Your task to perform on an android device: Add bose soundlink mini to the cart on costco, then select checkout. Image 0: 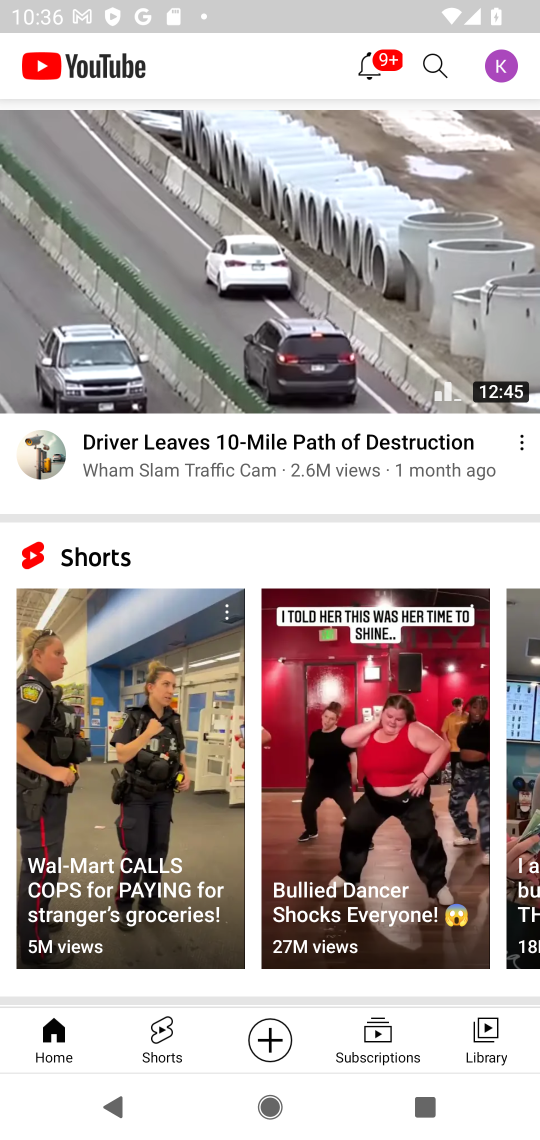
Step 0: press home button
Your task to perform on an android device: Add bose soundlink mini to the cart on costco, then select checkout. Image 1: 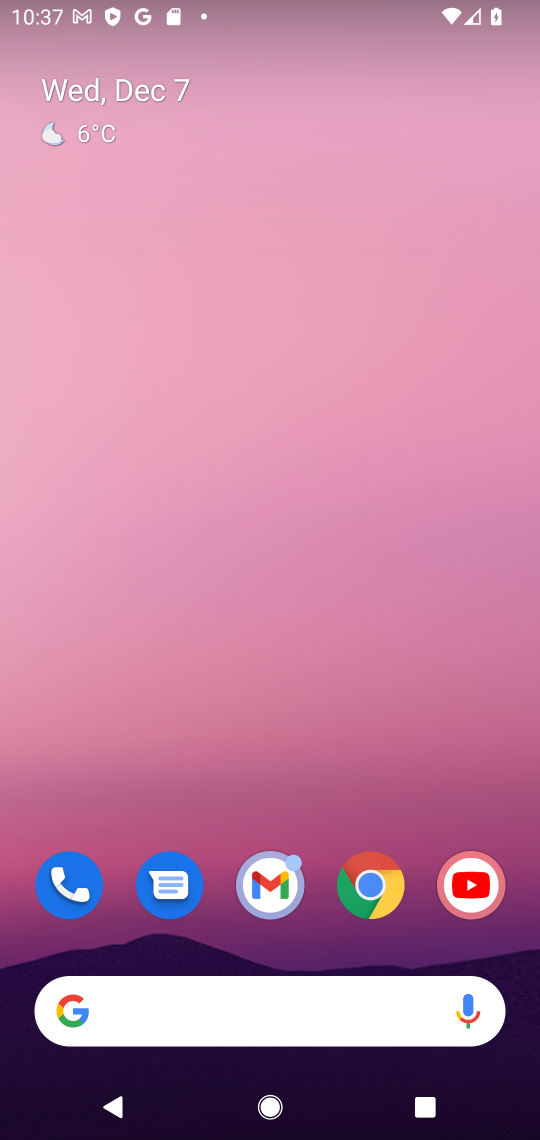
Step 1: click (362, 890)
Your task to perform on an android device: Add bose soundlink mini to the cart on costco, then select checkout. Image 2: 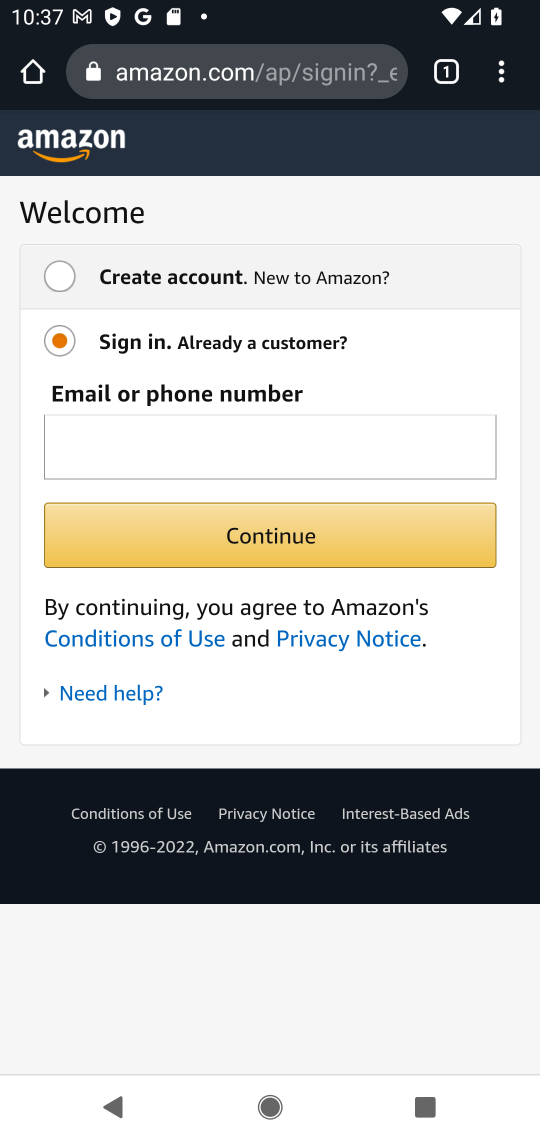
Step 2: click (241, 79)
Your task to perform on an android device: Add bose soundlink mini to the cart on costco, then select checkout. Image 3: 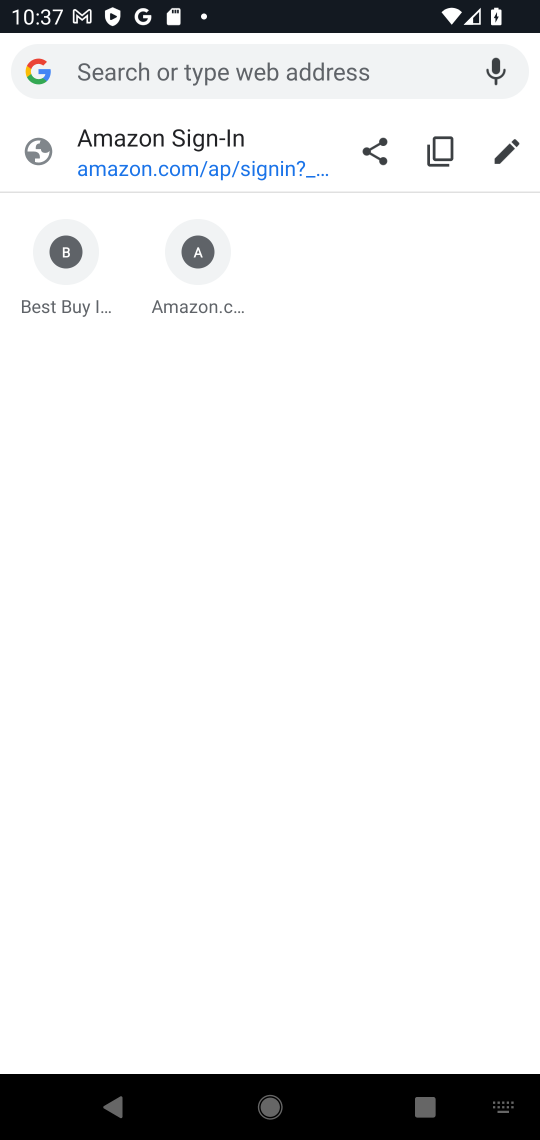
Step 3: type "COSTCO"
Your task to perform on an android device: Add bose soundlink mini to the cart on costco, then select checkout. Image 4: 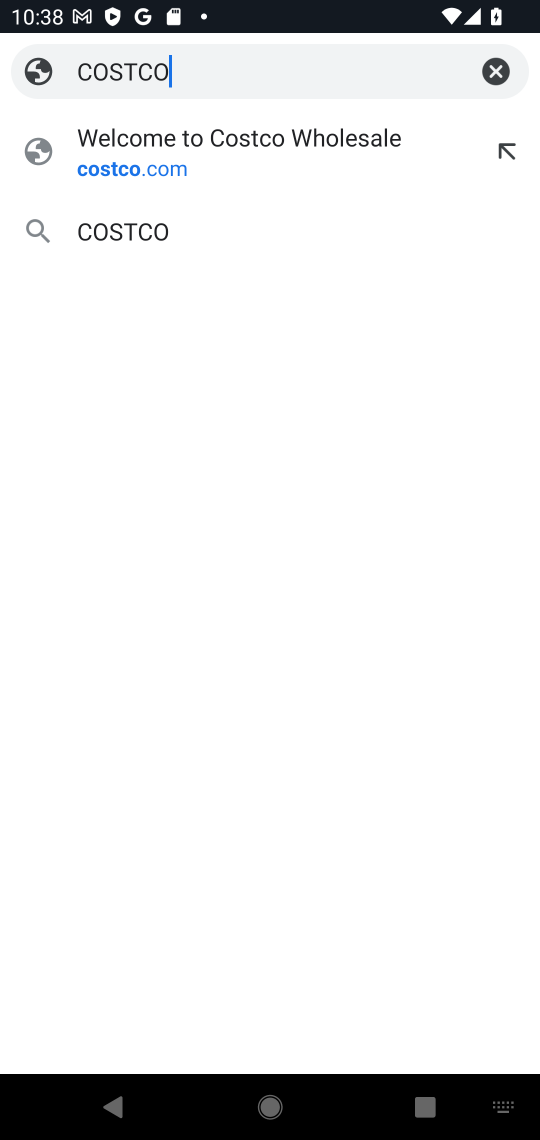
Step 4: click (195, 150)
Your task to perform on an android device: Add bose soundlink mini to the cart on costco, then select checkout. Image 5: 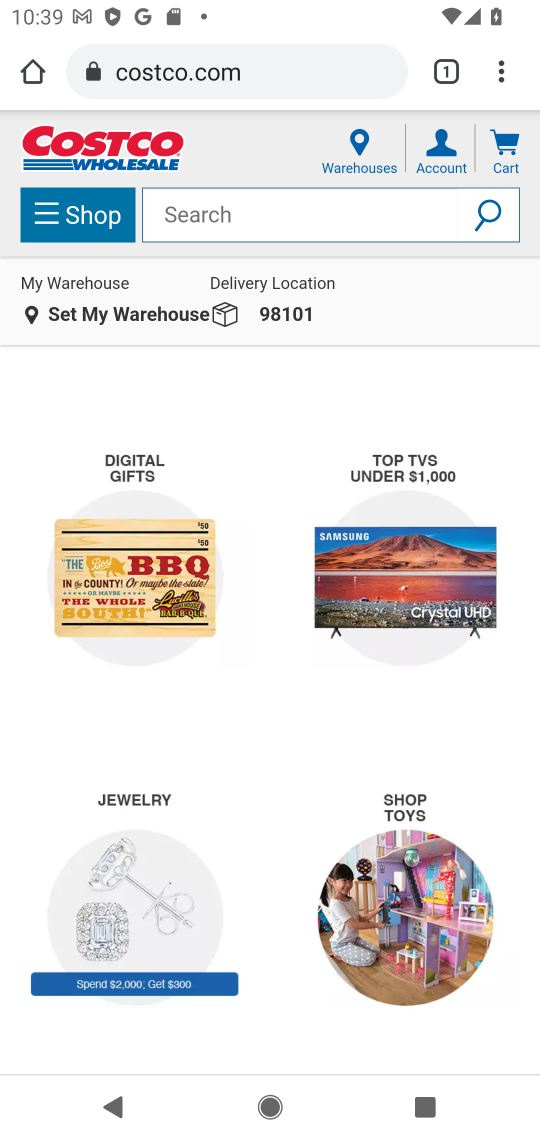
Step 5: click (394, 209)
Your task to perform on an android device: Add bose soundlink mini to the cart on costco, then select checkout. Image 6: 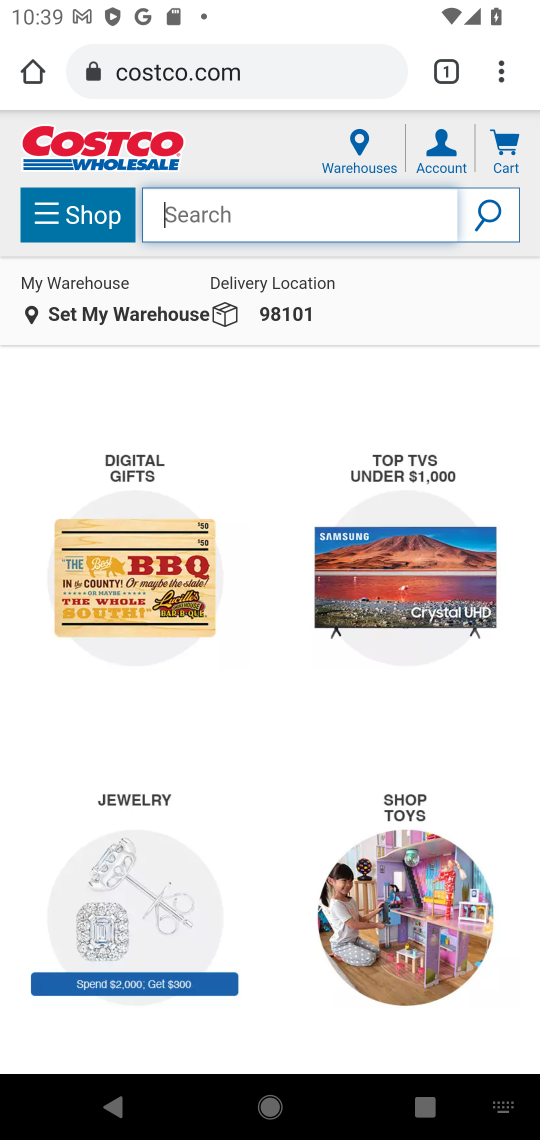
Step 6: type "bose soundlink mini"
Your task to perform on an android device: Add bose soundlink mini to the cart on costco, then select checkout. Image 7: 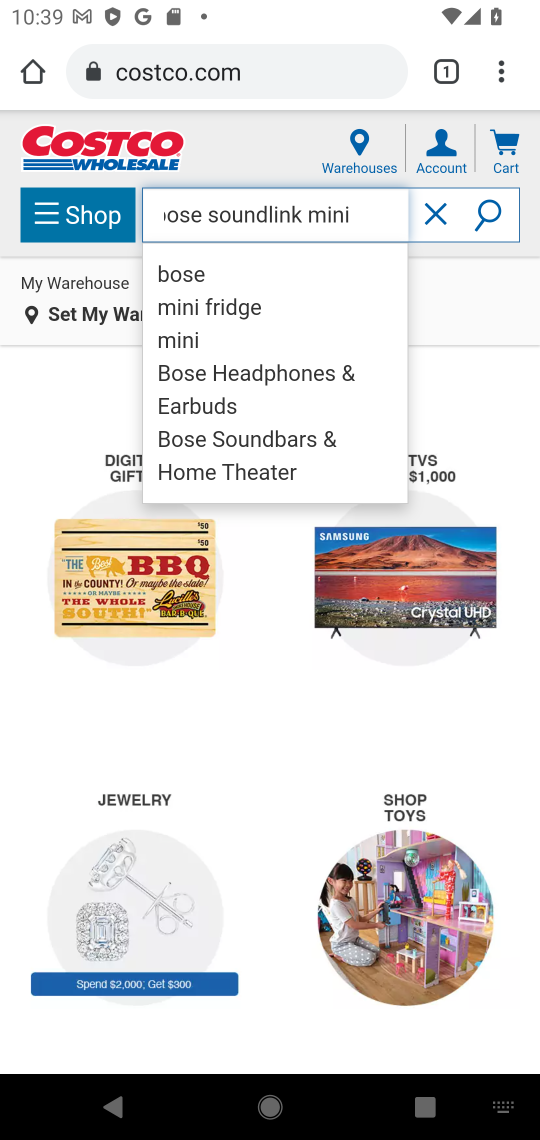
Step 7: click (194, 282)
Your task to perform on an android device: Add bose soundlink mini to the cart on costco, then select checkout. Image 8: 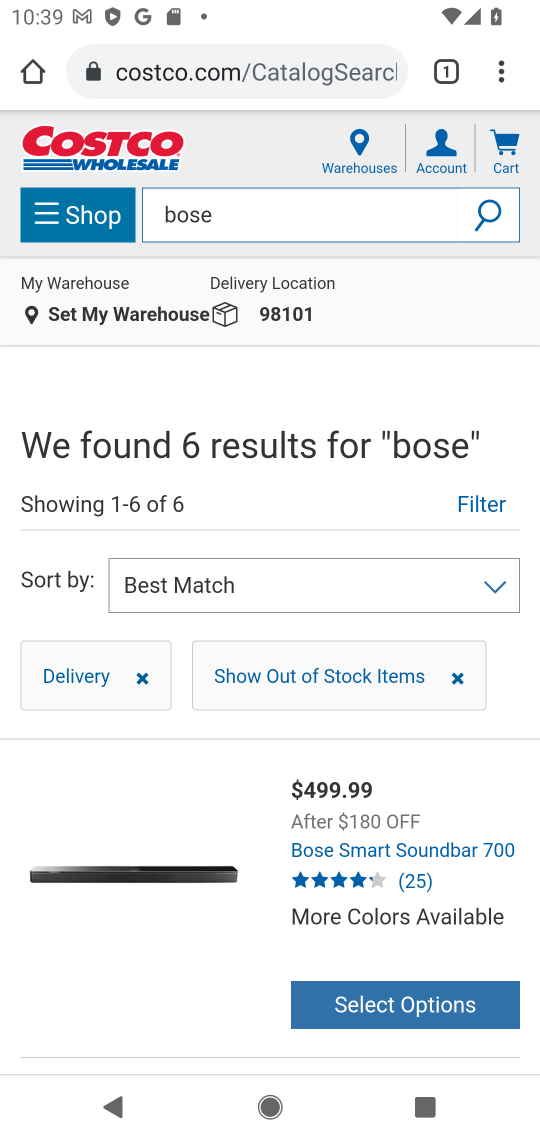
Step 8: click (197, 895)
Your task to perform on an android device: Add bose soundlink mini to the cart on costco, then select checkout. Image 9: 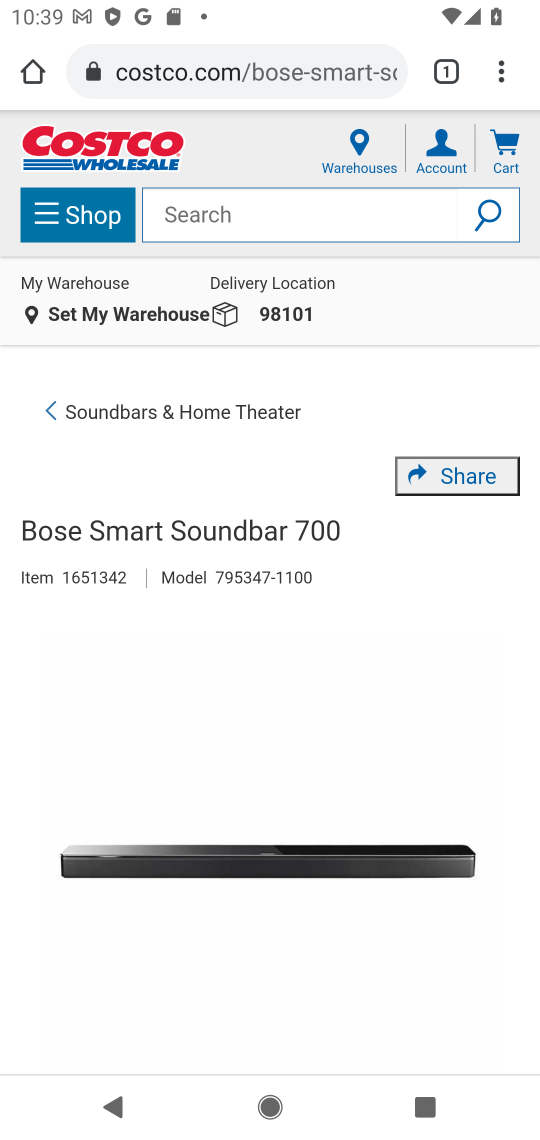
Step 9: drag from (401, 888) to (354, 135)
Your task to perform on an android device: Add bose soundlink mini to the cart on costco, then select checkout. Image 10: 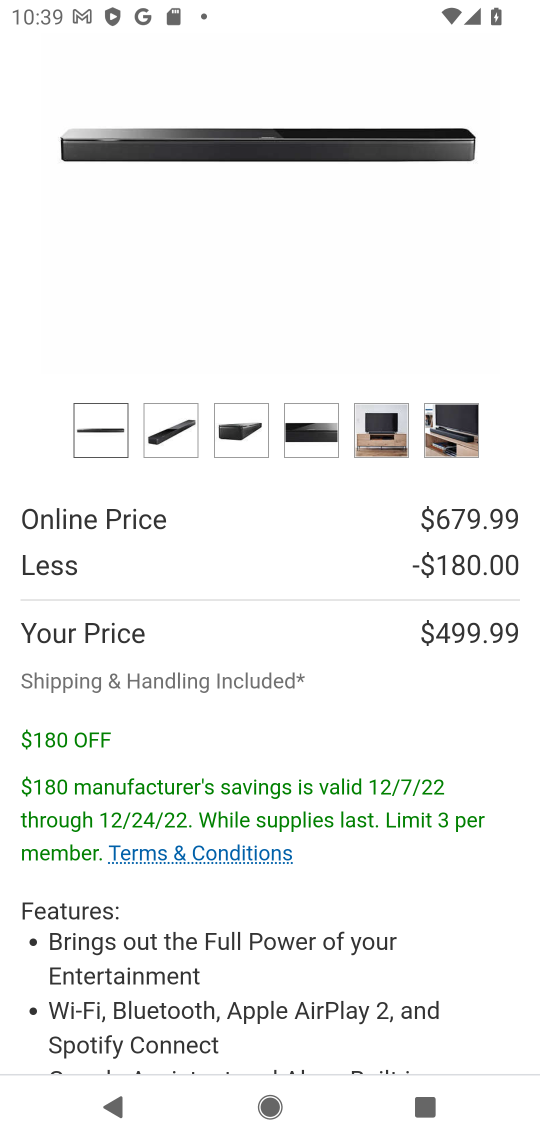
Step 10: drag from (406, 986) to (386, 134)
Your task to perform on an android device: Add bose soundlink mini to the cart on costco, then select checkout. Image 11: 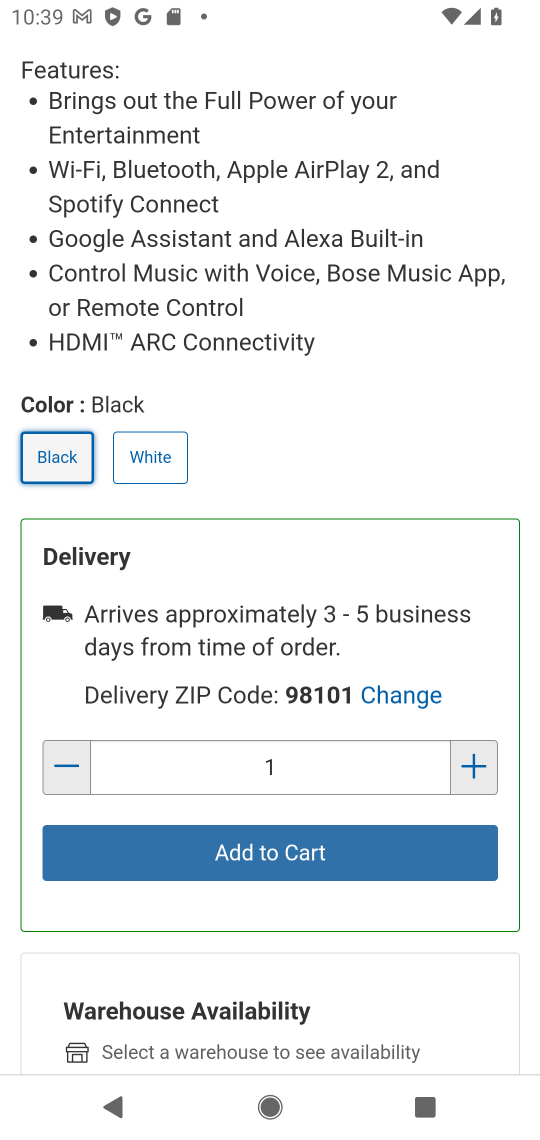
Step 11: click (251, 856)
Your task to perform on an android device: Add bose soundlink mini to the cart on costco, then select checkout. Image 12: 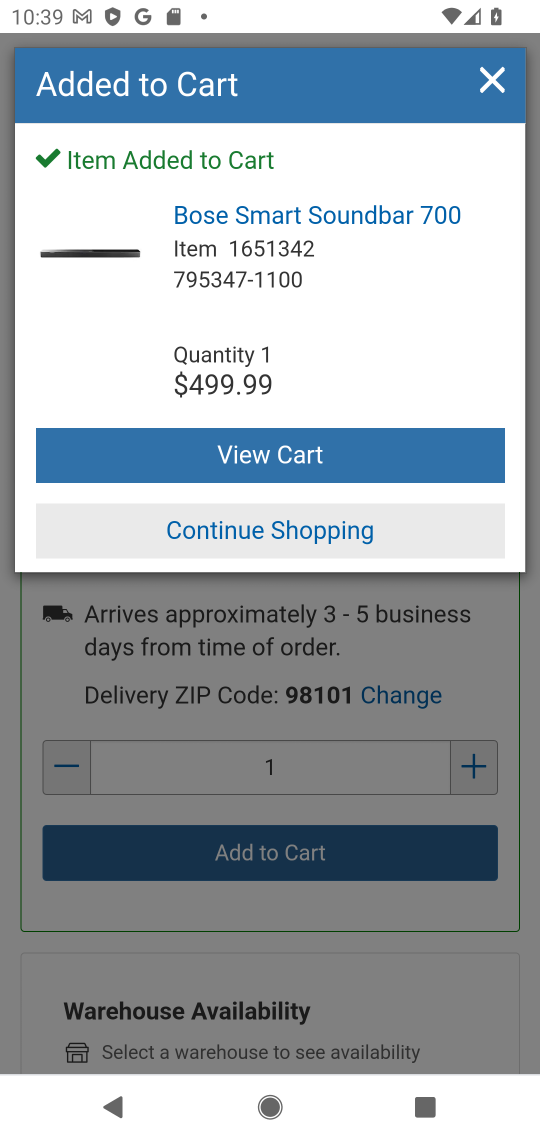
Step 12: click (282, 454)
Your task to perform on an android device: Add bose soundlink mini to the cart on costco, then select checkout. Image 13: 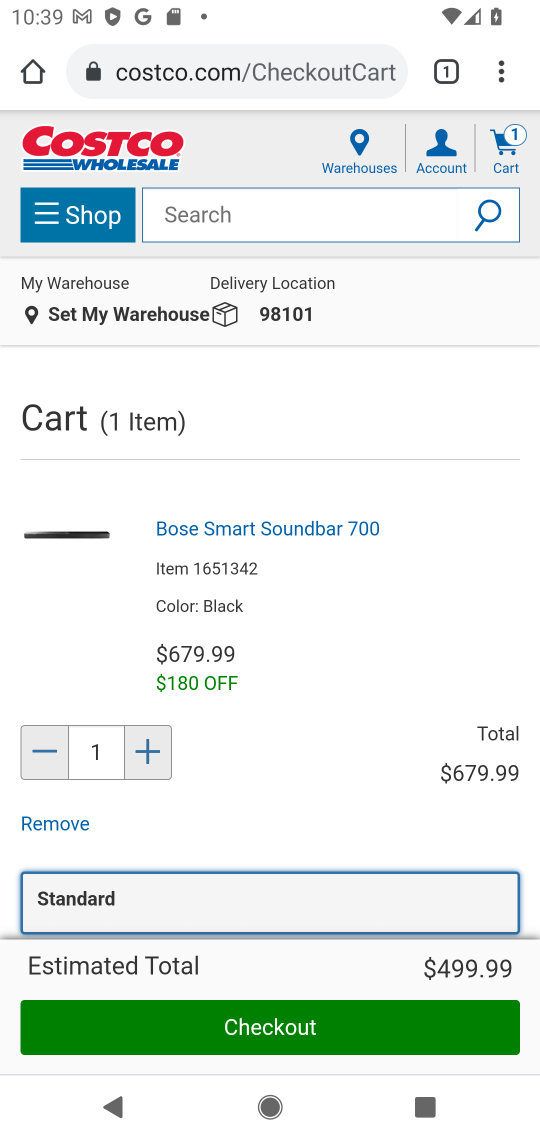
Step 13: click (286, 1029)
Your task to perform on an android device: Add bose soundlink mini to the cart on costco, then select checkout. Image 14: 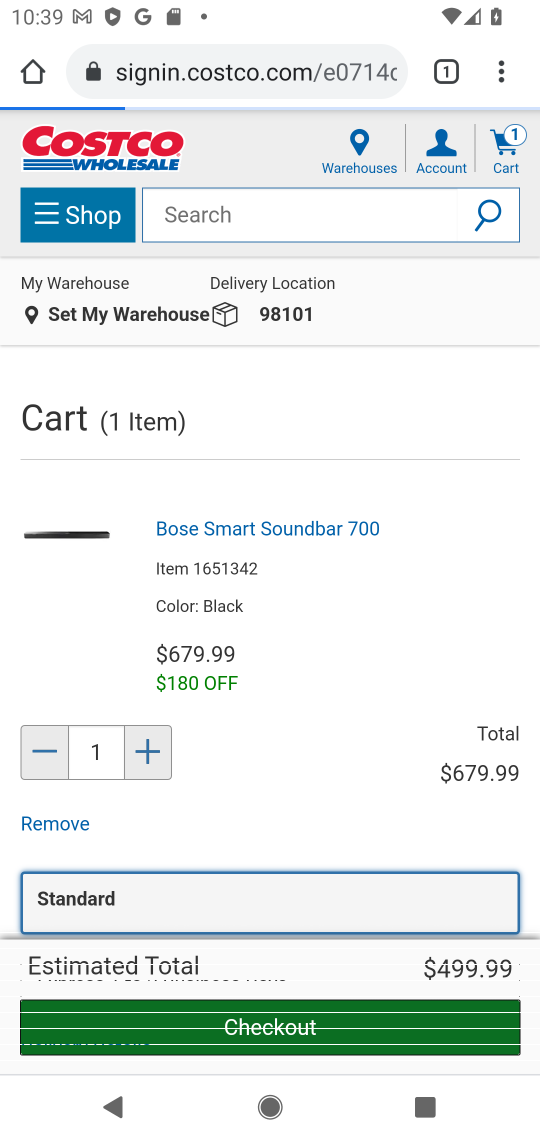
Step 14: task complete